Your task to perform on an android device: What is the news today? Image 0: 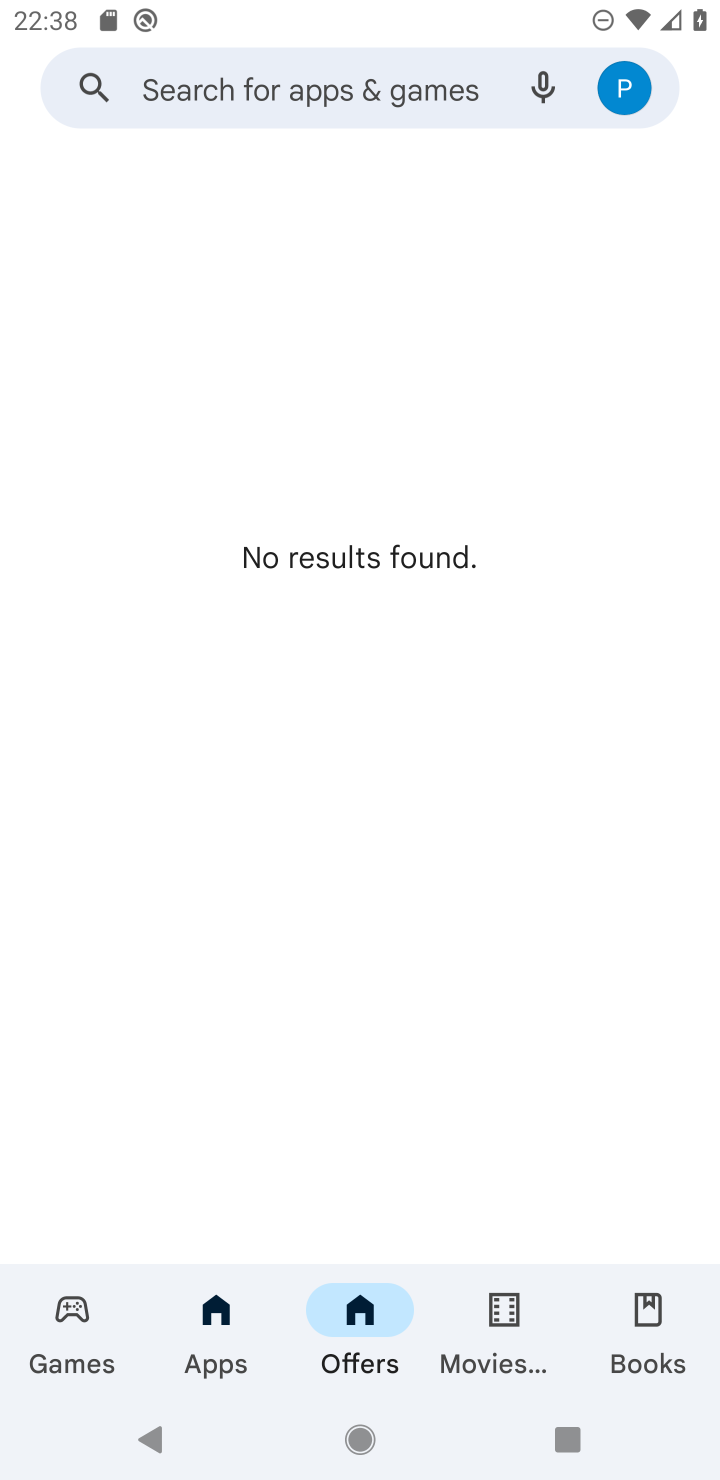
Step 0: press home button
Your task to perform on an android device: What is the news today? Image 1: 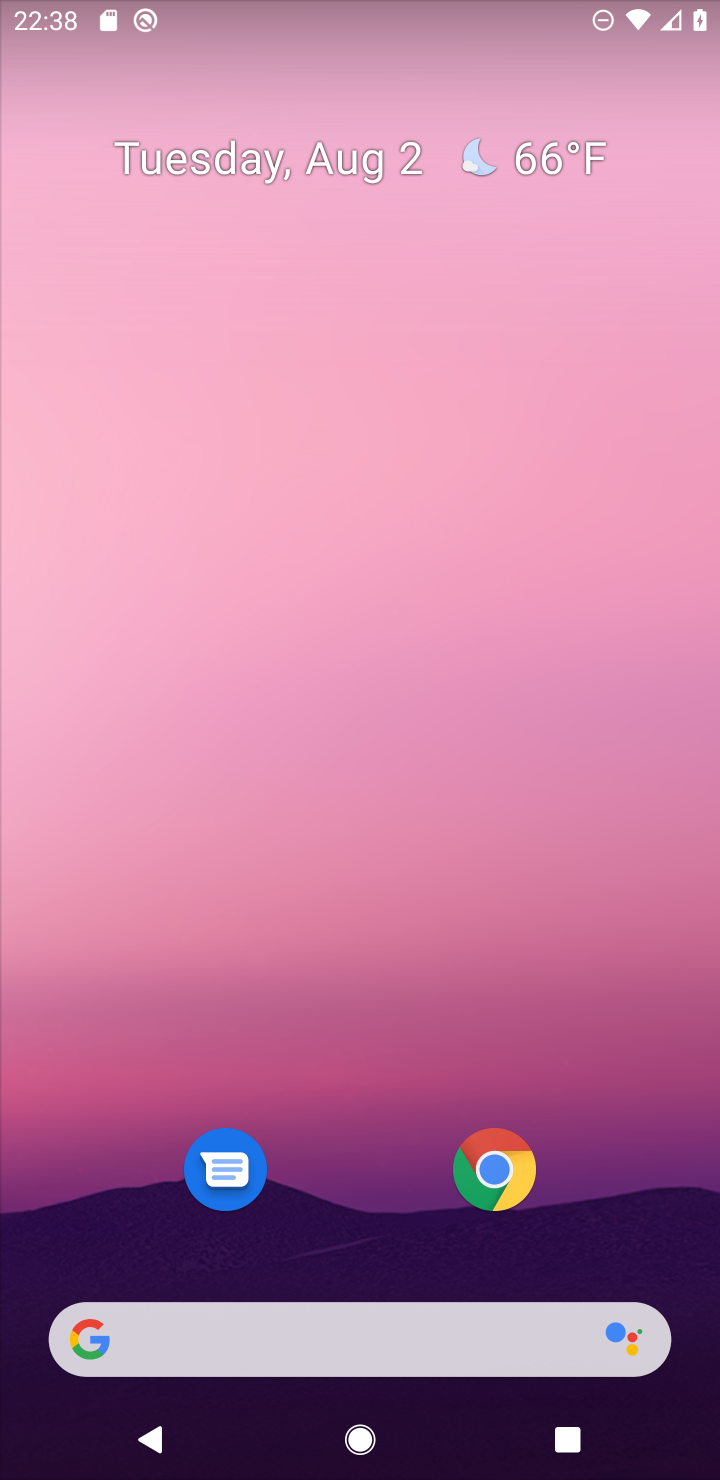
Step 1: task complete